Your task to perform on an android device: Set the phone to "Do not disturb". Image 0: 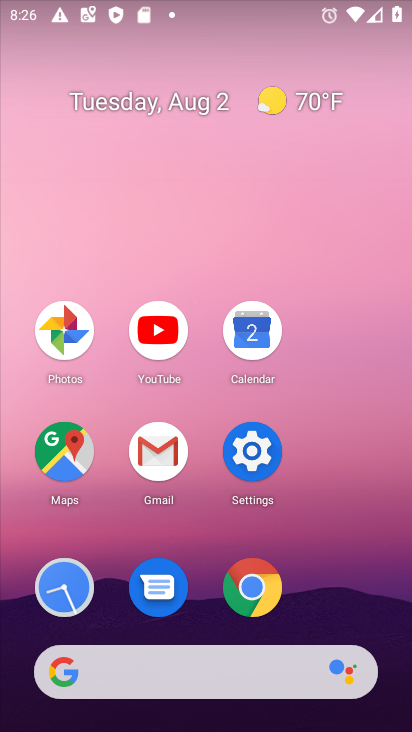
Step 0: click (249, 451)
Your task to perform on an android device: Set the phone to "Do not disturb". Image 1: 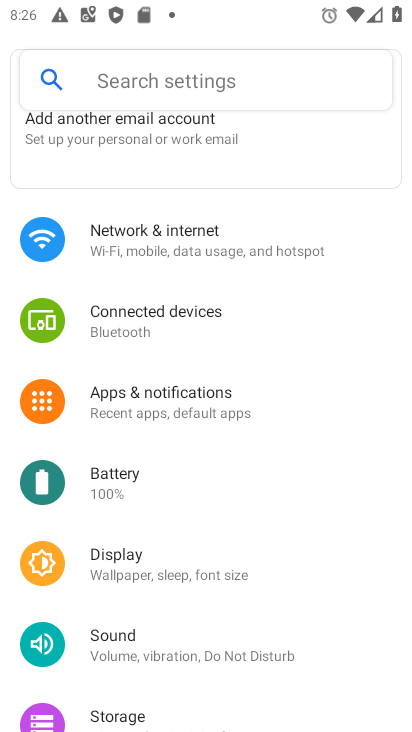
Step 1: click (112, 641)
Your task to perform on an android device: Set the phone to "Do not disturb". Image 2: 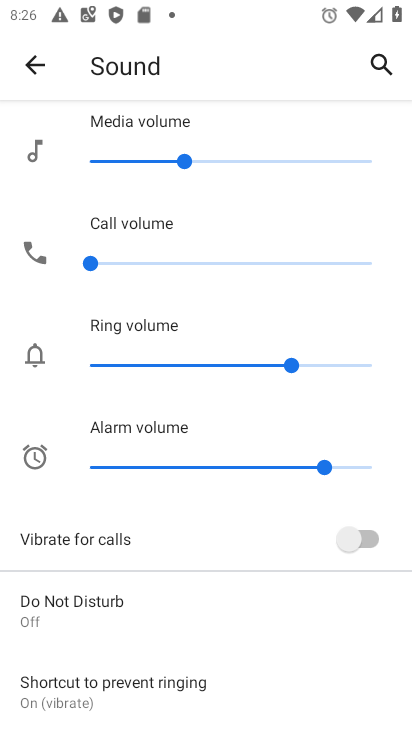
Step 2: click (67, 598)
Your task to perform on an android device: Set the phone to "Do not disturb". Image 3: 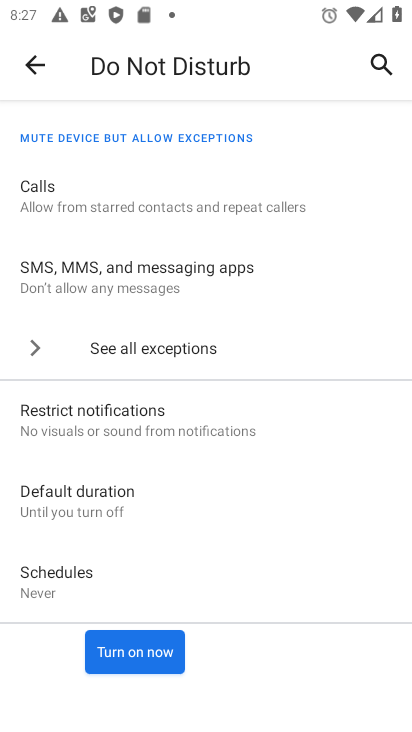
Step 3: click (139, 656)
Your task to perform on an android device: Set the phone to "Do not disturb". Image 4: 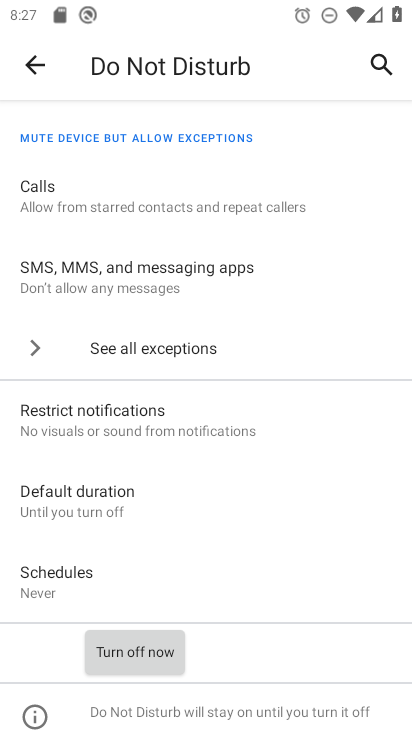
Step 4: task complete